Your task to perform on an android device: turn off improve location accuracy Image 0: 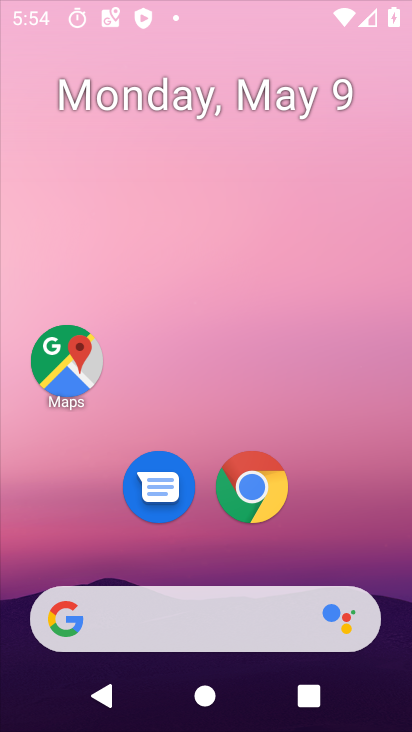
Step 0: drag from (321, 550) to (295, 140)
Your task to perform on an android device: turn off improve location accuracy Image 1: 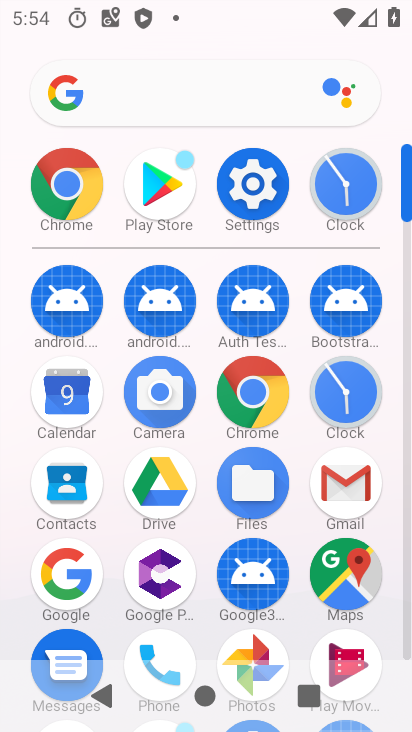
Step 1: click (243, 204)
Your task to perform on an android device: turn off improve location accuracy Image 2: 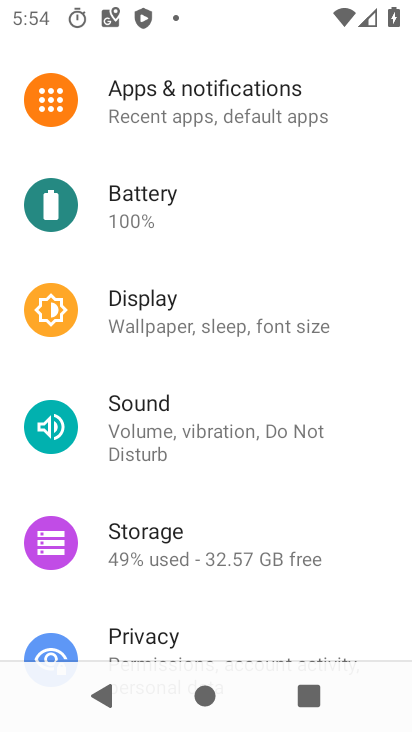
Step 2: drag from (164, 586) to (222, 260)
Your task to perform on an android device: turn off improve location accuracy Image 3: 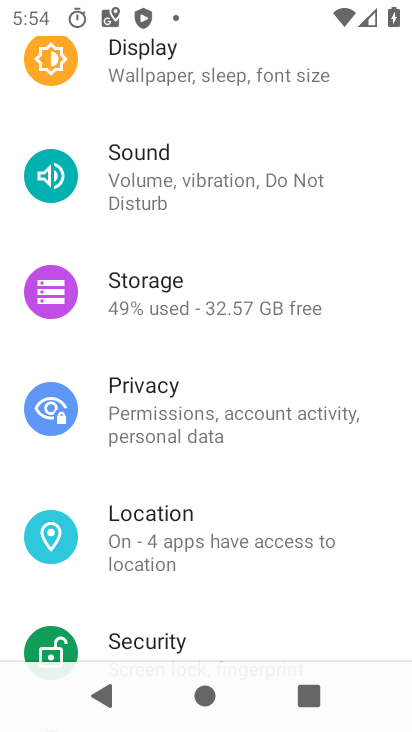
Step 3: click (135, 541)
Your task to perform on an android device: turn off improve location accuracy Image 4: 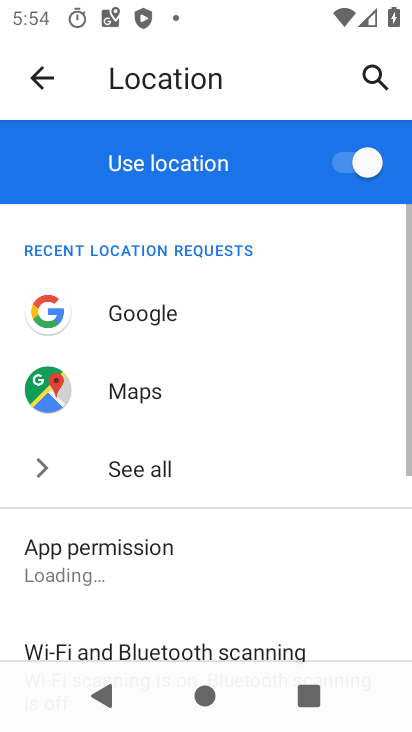
Step 4: drag from (162, 581) to (285, 77)
Your task to perform on an android device: turn off improve location accuracy Image 5: 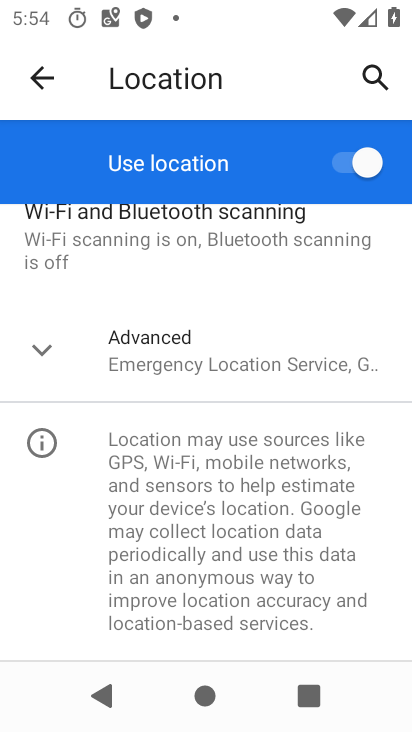
Step 5: click (124, 338)
Your task to perform on an android device: turn off improve location accuracy Image 6: 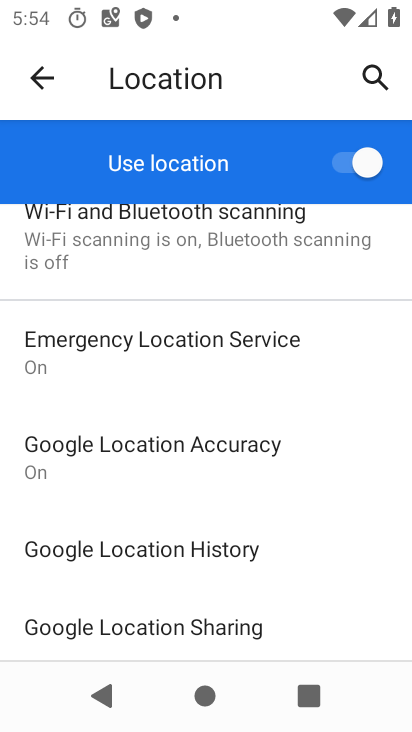
Step 6: click (102, 454)
Your task to perform on an android device: turn off improve location accuracy Image 7: 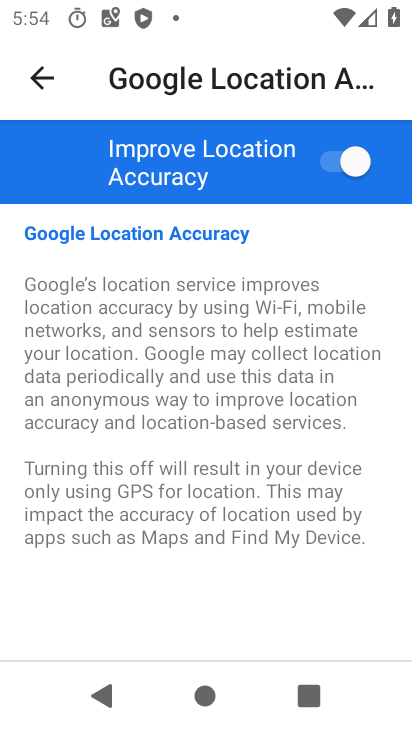
Step 7: task complete